Your task to perform on an android device: open device folders in google photos Image 0: 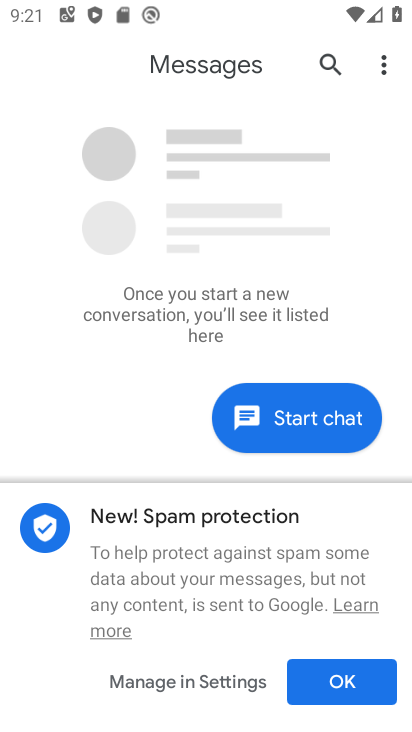
Step 0: press back button
Your task to perform on an android device: open device folders in google photos Image 1: 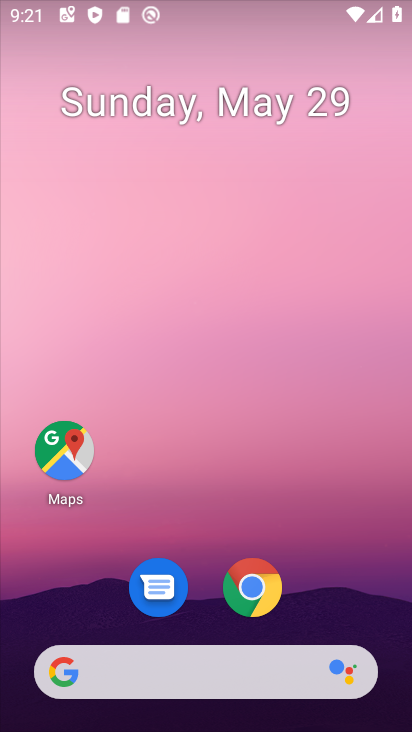
Step 1: drag from (252, 474) to (49, 130)
Your task to perform on an android device: open device folders in google photos Image 2: 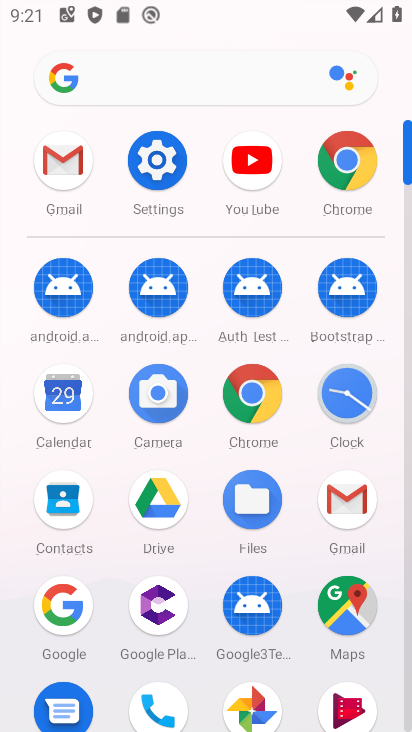
Step 2: click (255, 692)
Your task to perform on an android device: open device folders in google photos Image 3: 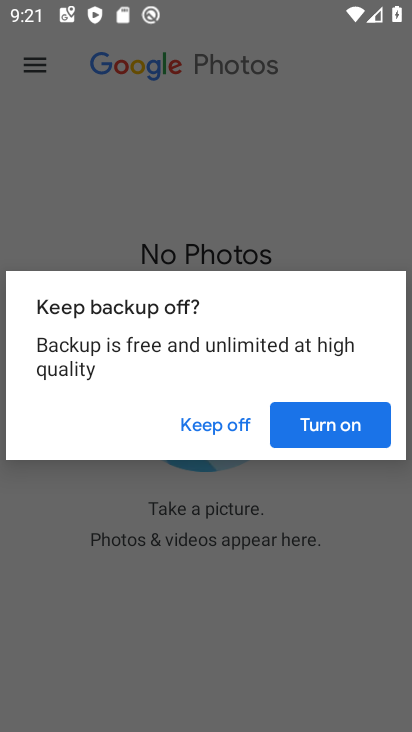
Step 3: click (226, 415)
Your task to perform on an android device: open device folders in google photos Image 4: 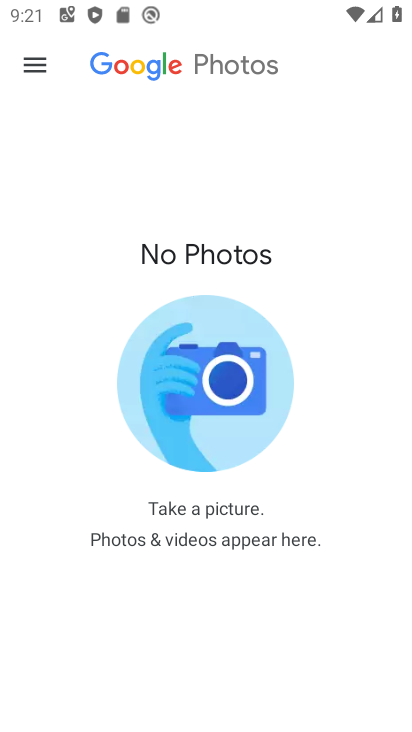
Step 4: click (34, 58)
Your task to perform on an android device: open device folders in google photos Image 5: 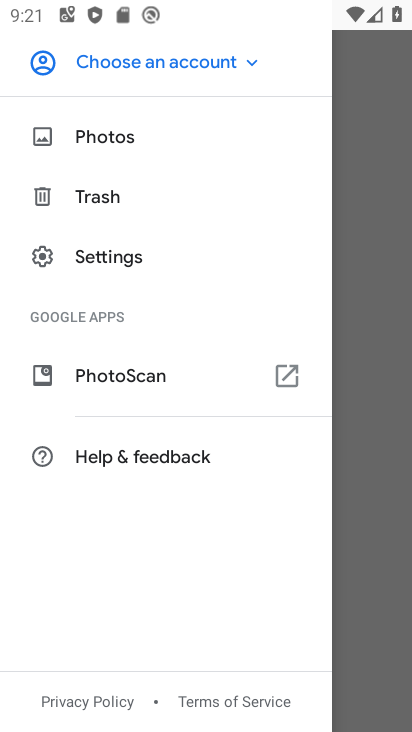
Step 5: drag from (149, 165) to (149, 604)
Your task to perform on an android device: open device folders in google photos Image 6: 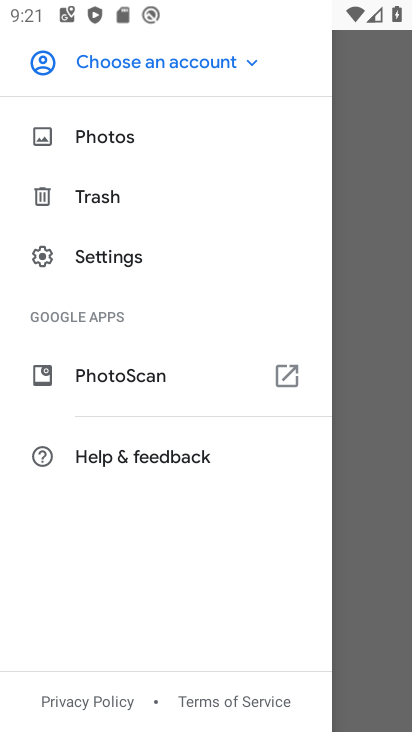
Step 6: click (111, 129)
Your task to perform on an android device: open device folders in google photos Image 7: 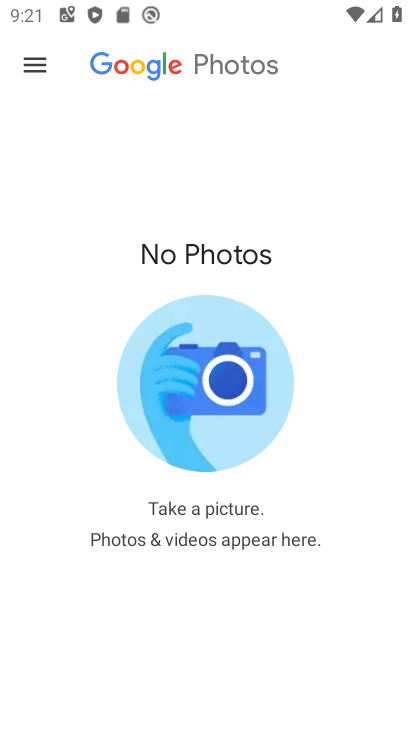
Step 7: task complete